Your task to perform on an android device: find snoozed emails in the gmail app Image 0: 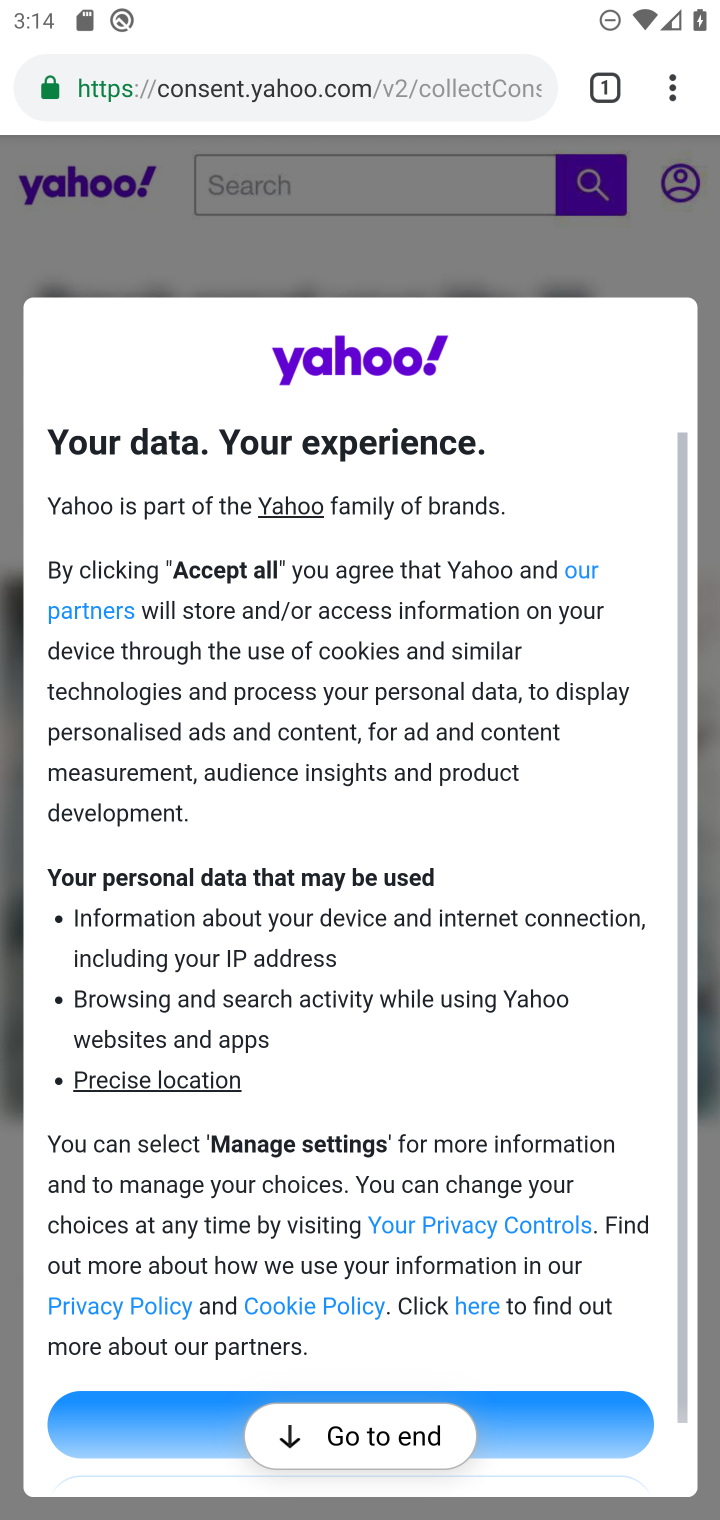
Step 0: press home button
Your task to perform on an android device: find snoozed emails in the gmail app Image 1: 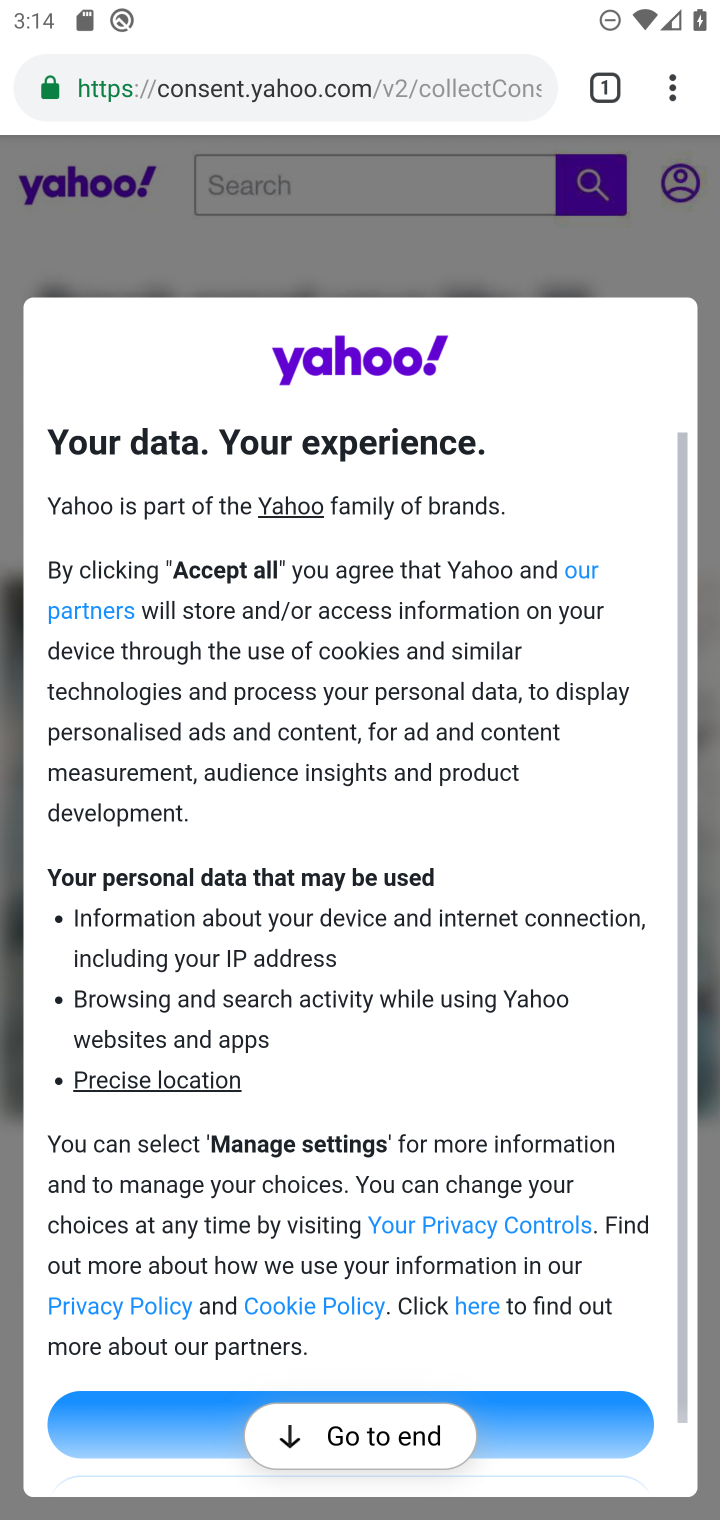
Step 1: press home button
Your task to perform on an android device: find snoozed emails in the gmail app Image 2: 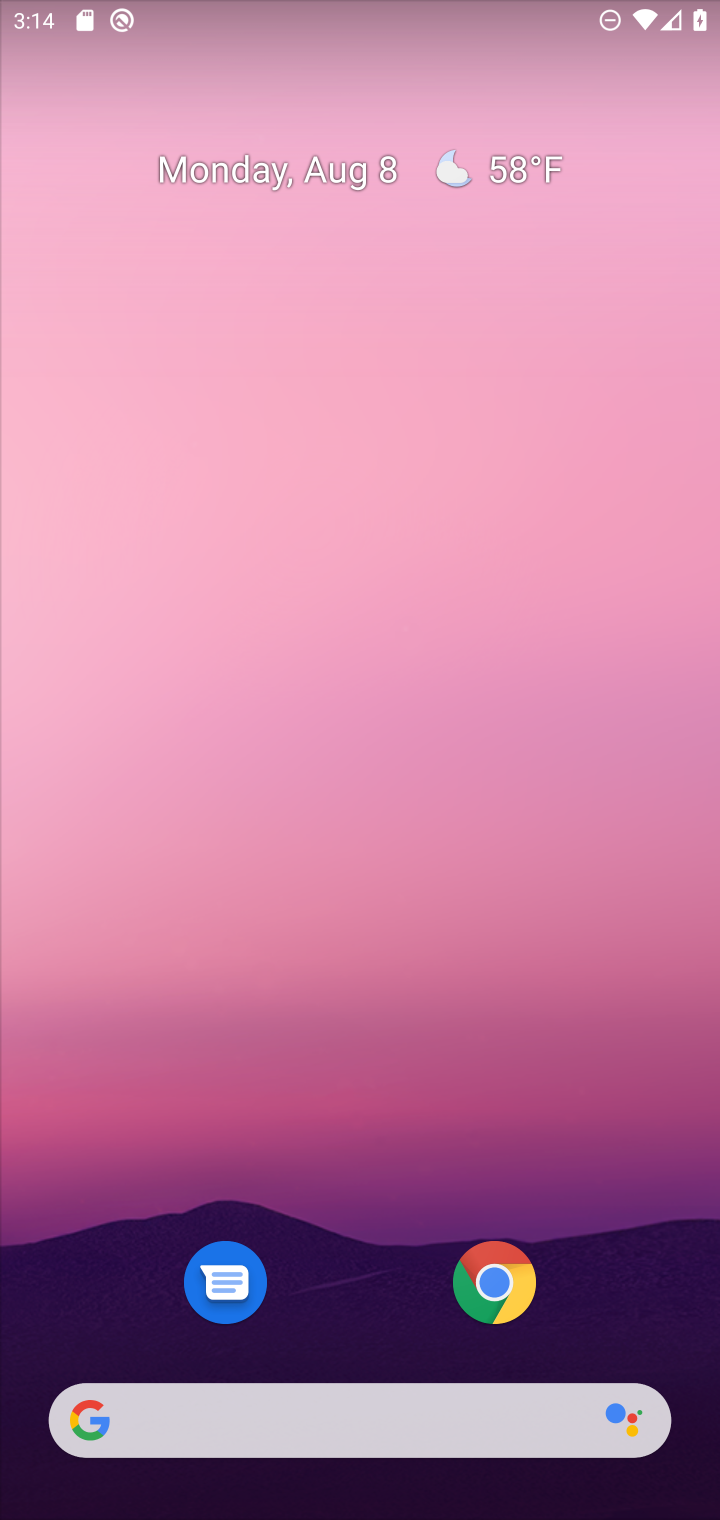
Step 2: drag from (287, 959) to (369, 208)
Your task to perform on an android device: find snoozed emails in the gmail app Image 3: 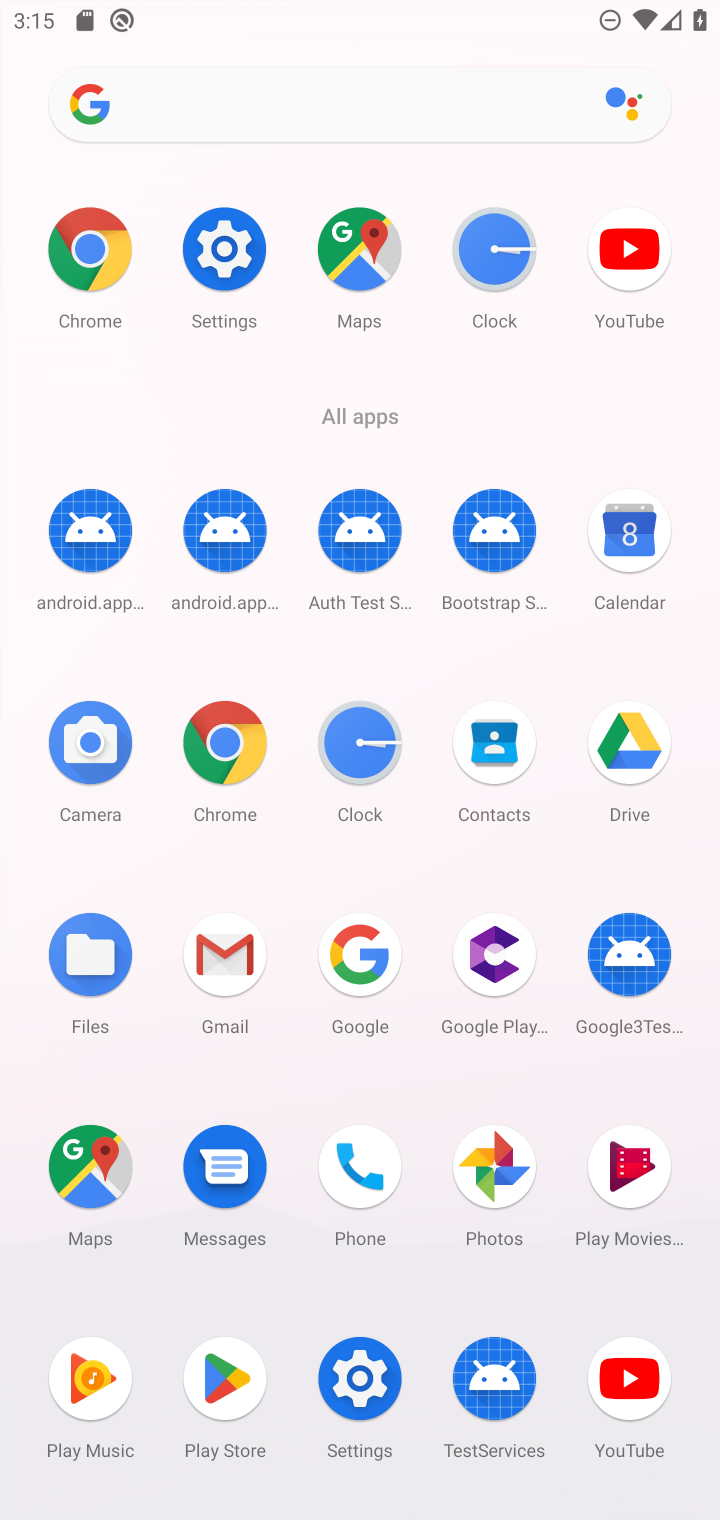
Step 3: click (224, 951)
Your task to perform on an android device: find snoozed emails in the gmail app Image 4: 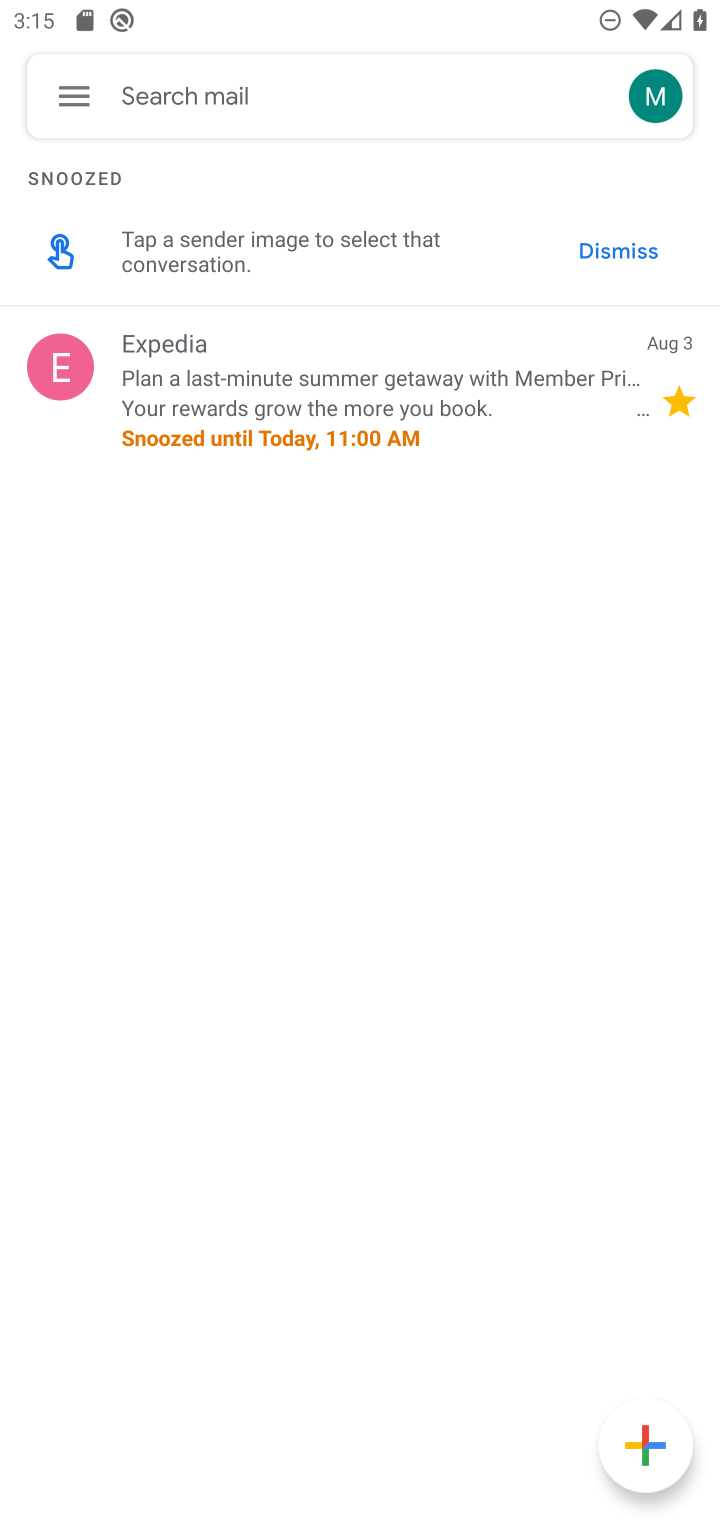
Step 4: click (83, 96)
Your task to perform on an android device: find snoozed emails in the gmail app Image 5: 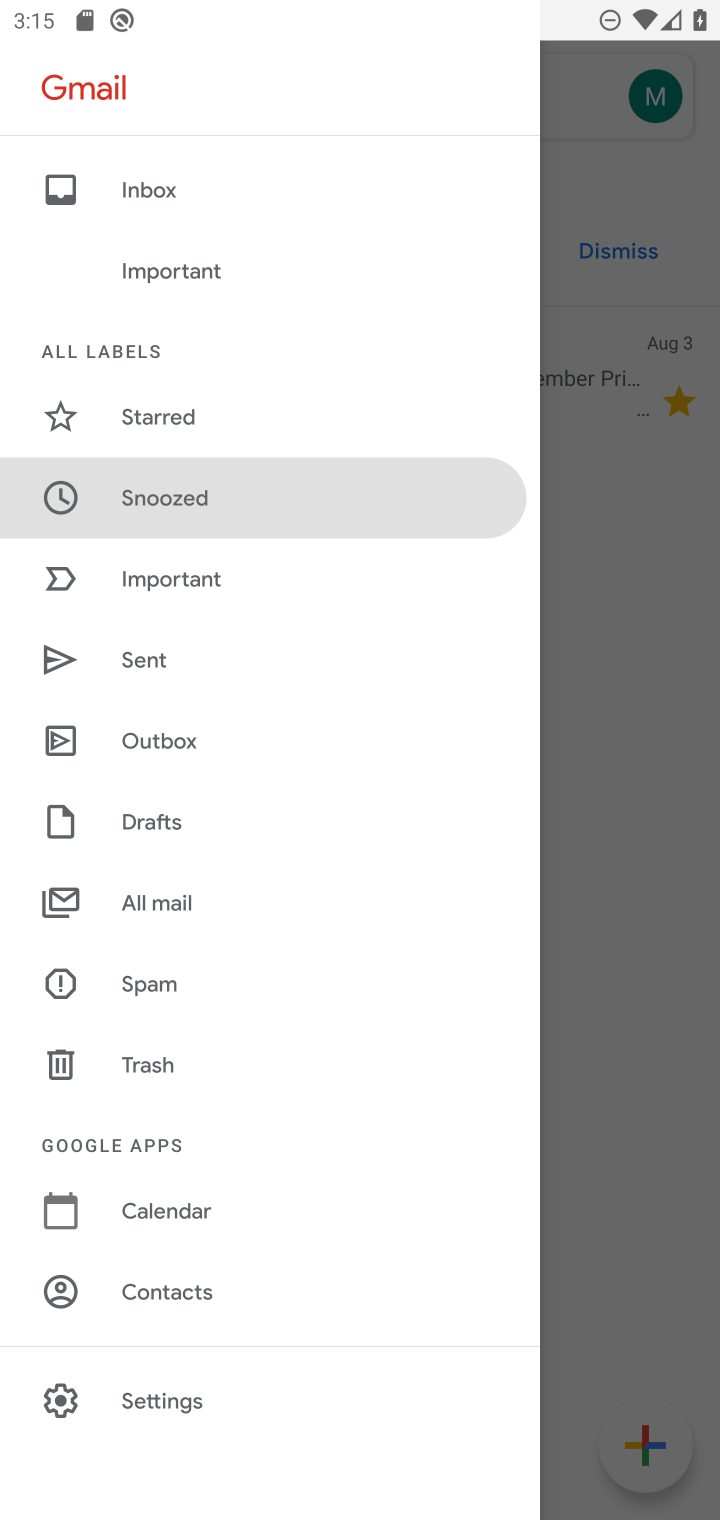
Step 5: click (164, 511)
Your task to perform on an android device: find snoozed emails in the gmail app Image 6: 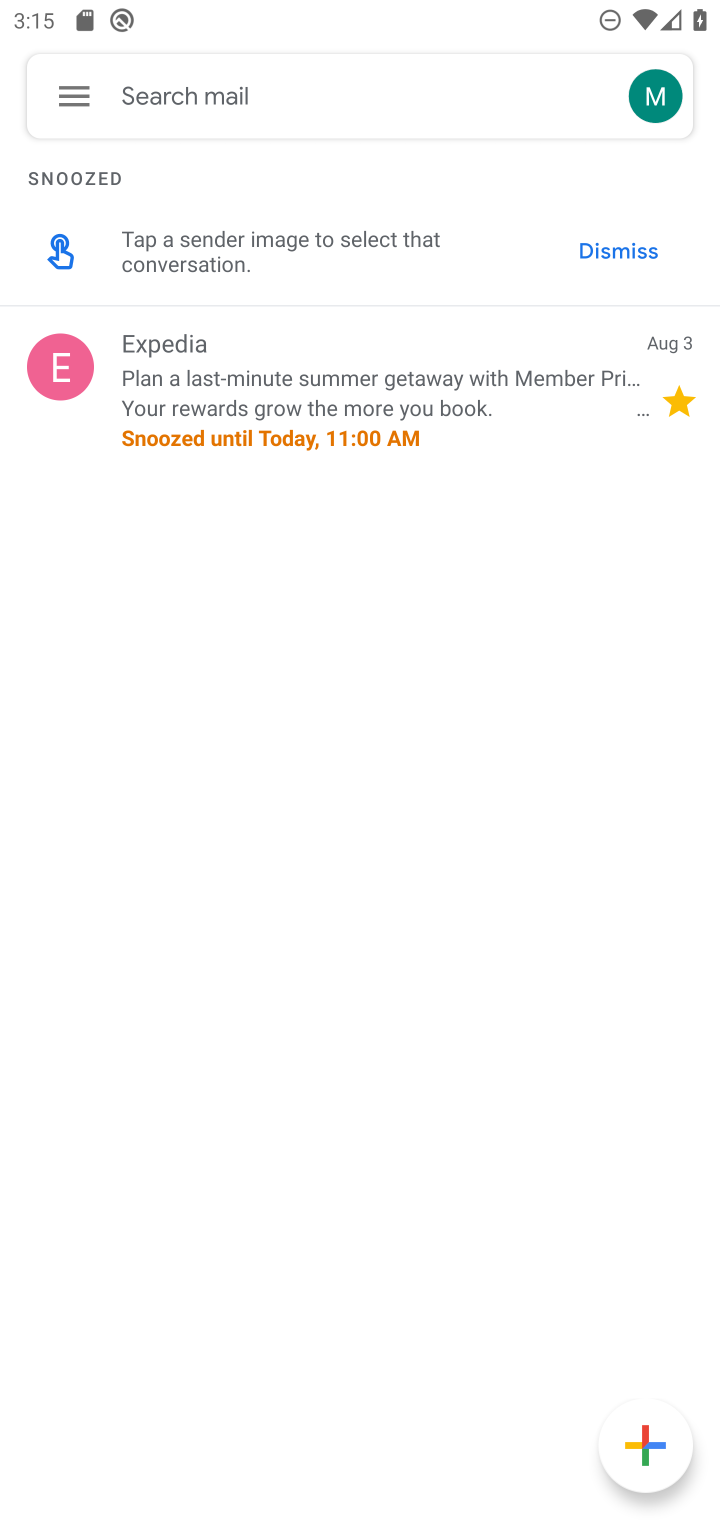
Step 6: click (642, 566)
Your task to perform on an android device: find snoozed emails in the gmail app Image 7: 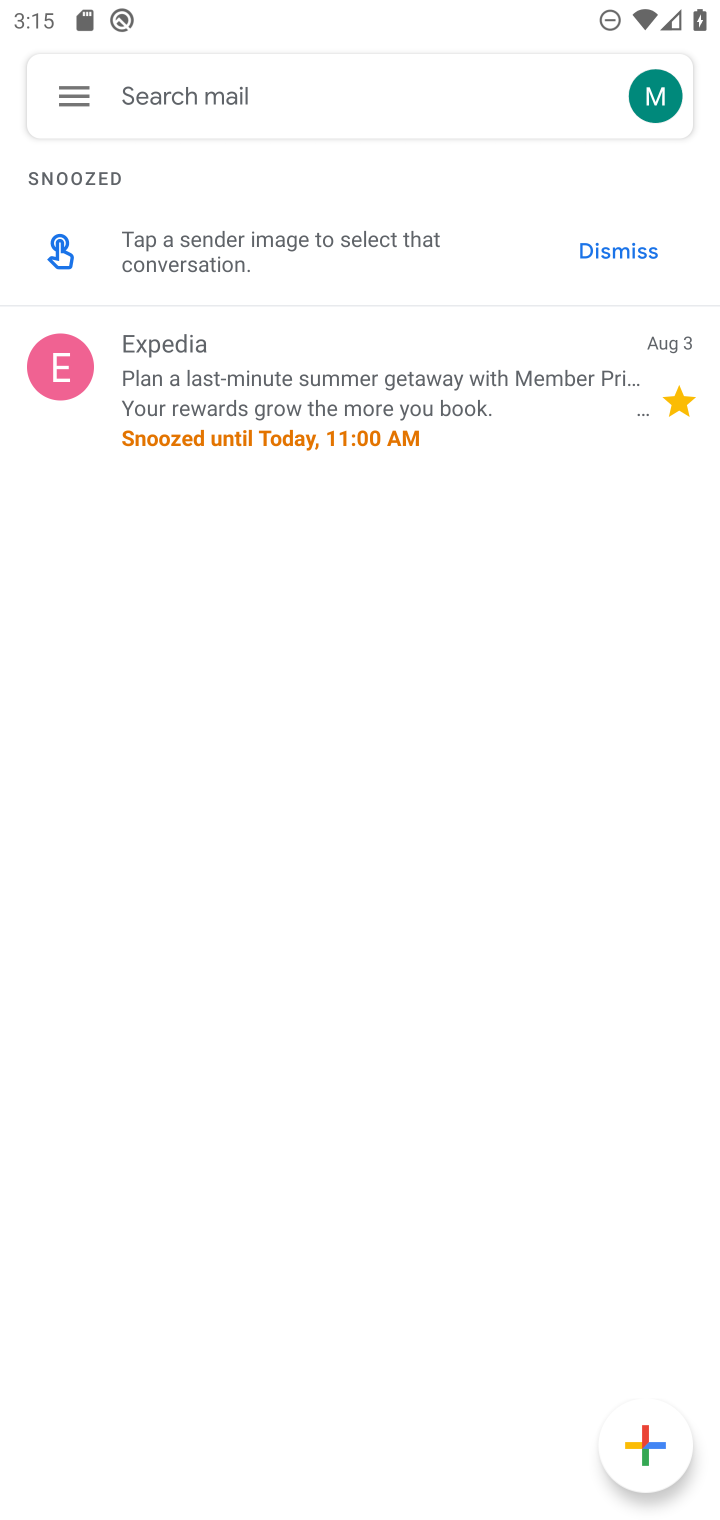
Step 7: task complete